Your task to perform on an android device: Go to battery settings Image 0: 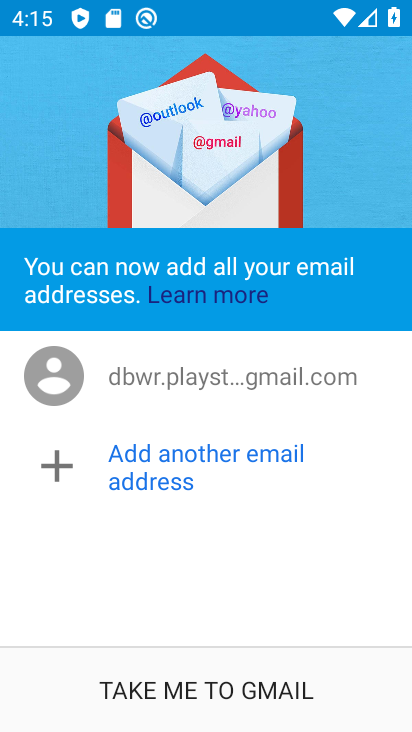
Step 0: press home button
Your task to perform on an android device: Go to battery settings Image 1: 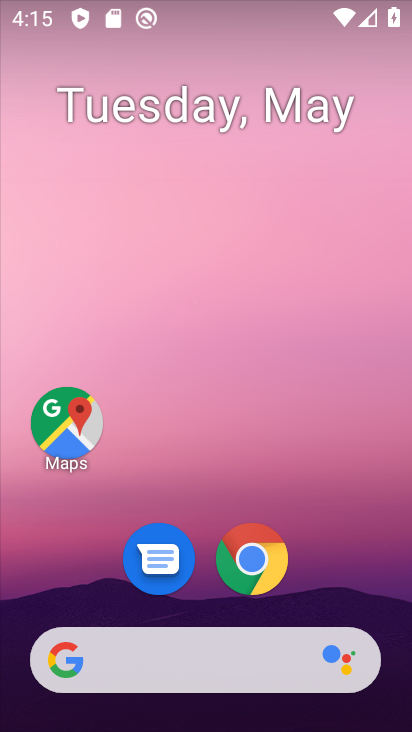
Step 1: drag from (317, 577) to (282, 15)
Your task to perform on an android device: Go to battery settings Image 2: 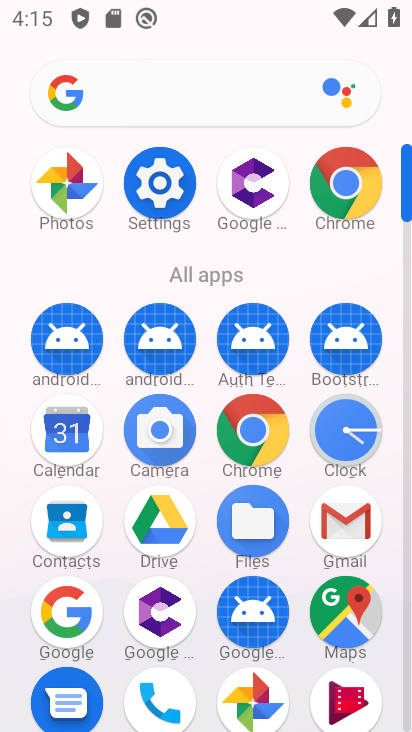
Step 2: click (173, 186)
Your task to perform on an android device: Go to battery settings Image 3: 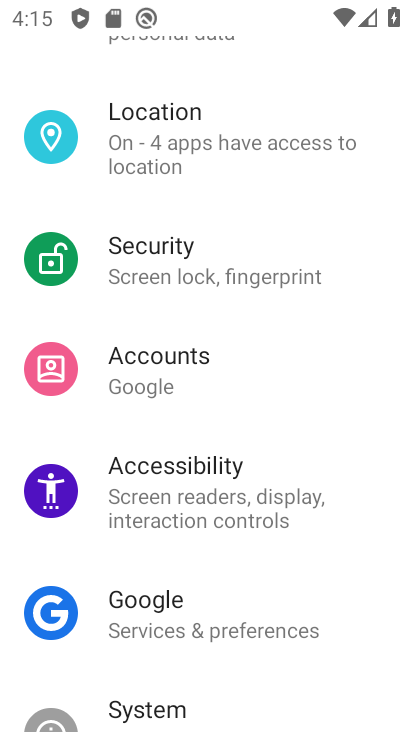
Step 3: drag from (247, 184) to (259, 612)
Your task to perform on an android device: Go to battery settings Image 4: 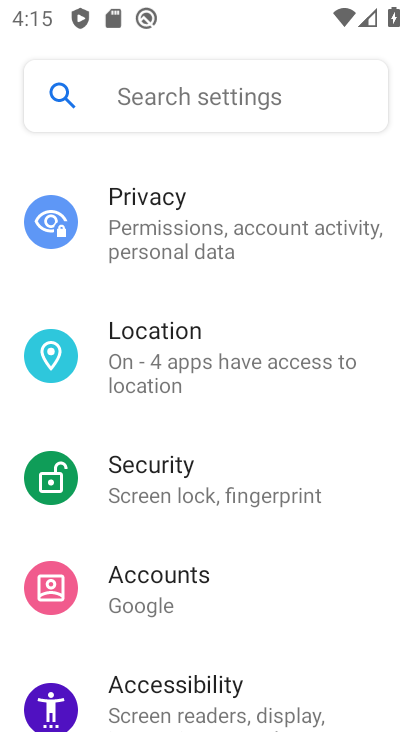
Step 4: drag from (344, 200) to (271, 617)
Your task to perform on an android device: Go to battery settings Image 5: 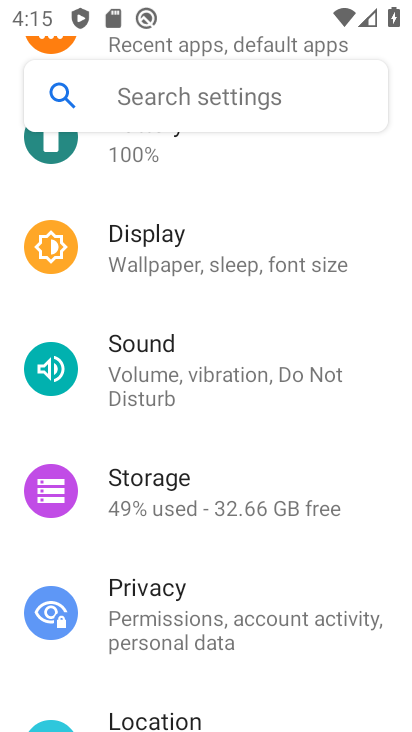
Step 5: drag from (259, 172) to (268, 558)
Your task to perform on an android device: Go to battery settings Image 6: 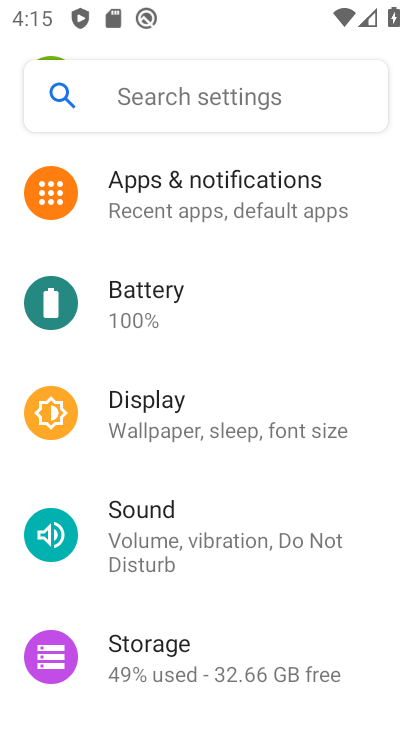
Step 6: click (191, 316)
Your task to perform on an android device: Go to battery settings Image 7: 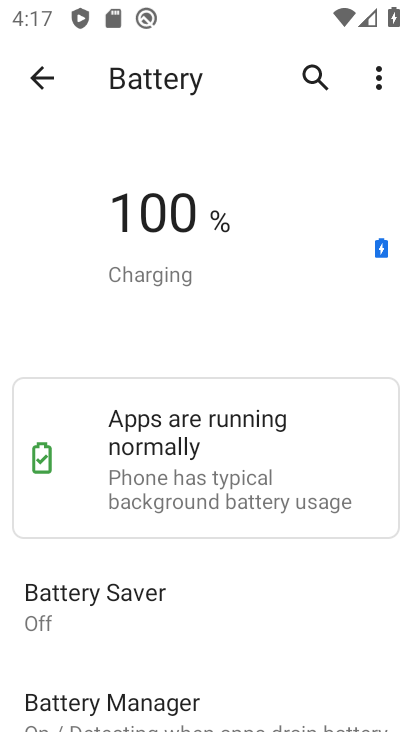
Step 7: task complete